Your task to perform on an android device: stop showing notifications on the lock screen Image 0: 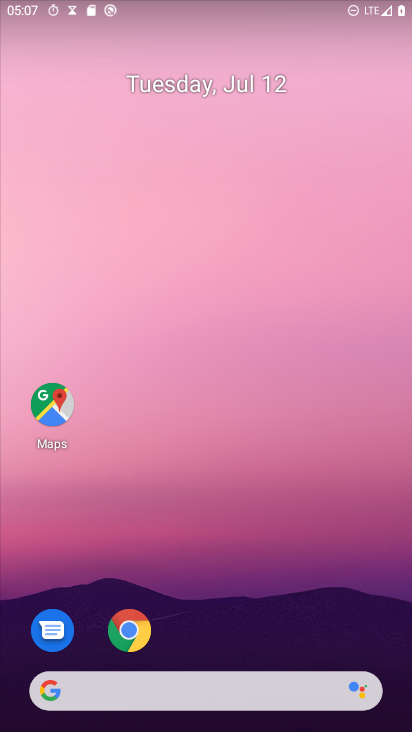
Step 0: drag from (224, 703) to (333, 24)
Your task to perform on an android device: stop showing notifications on the lock screen Image 1: 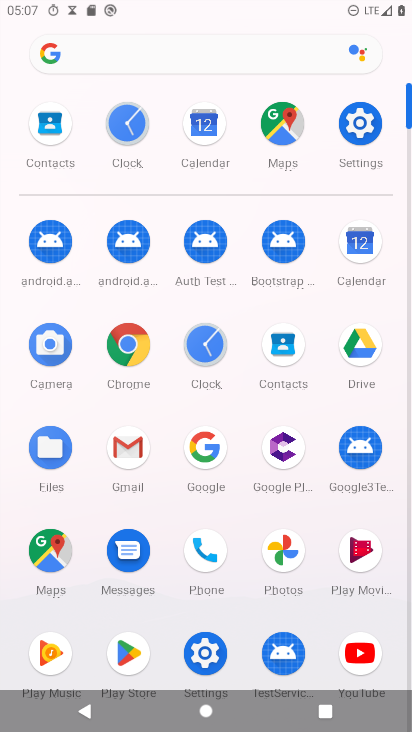
Step 1: click (367, 112)
Your task to perform on an android device: stop showing notifications on the lock screen Image 2: 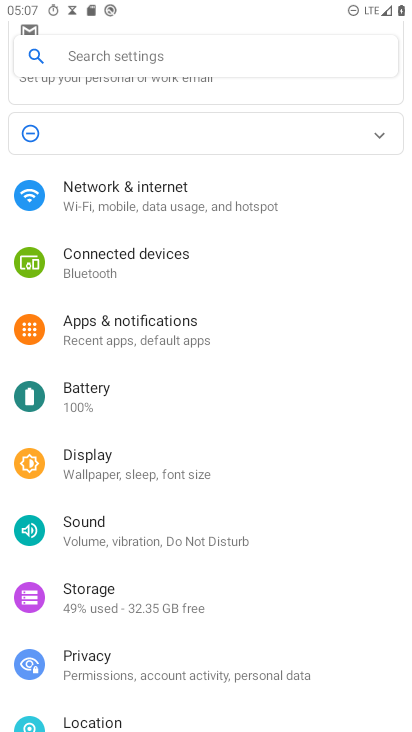
Step 2: click (153, 330)
Your task to perform on an android device: stop showing notifications on the lock screen Image 3: 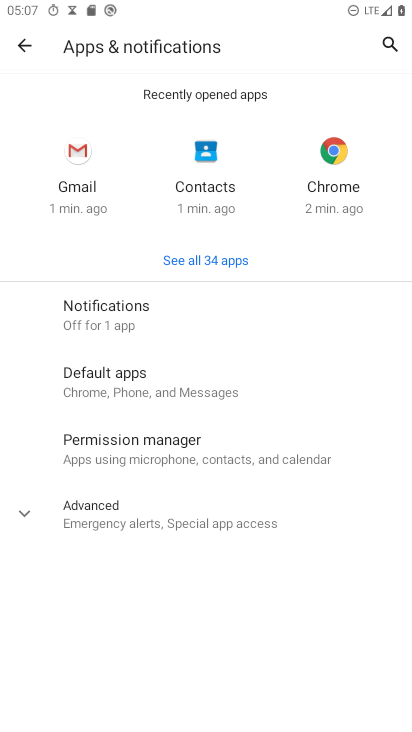
Step 3: click (140, 316)
Your task to perform on an android device: stop showing notifications on the lock screen Image 4: 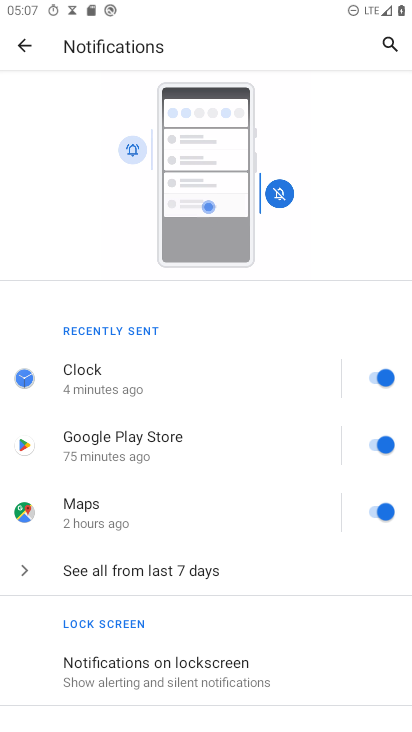
Step 4: click (190, 672)
Your task to perform on an android device: stop showing notifications on the lock screen Image 5: 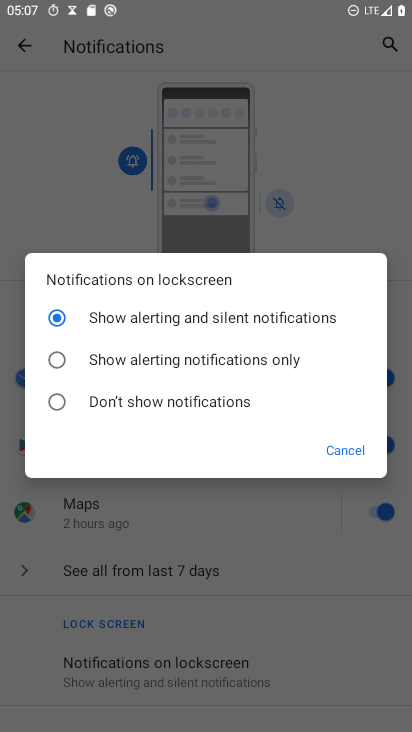
Step 5: click (54, 400)
Your task to perform on an android device: stop showing notifications on the lock screen Image 6: 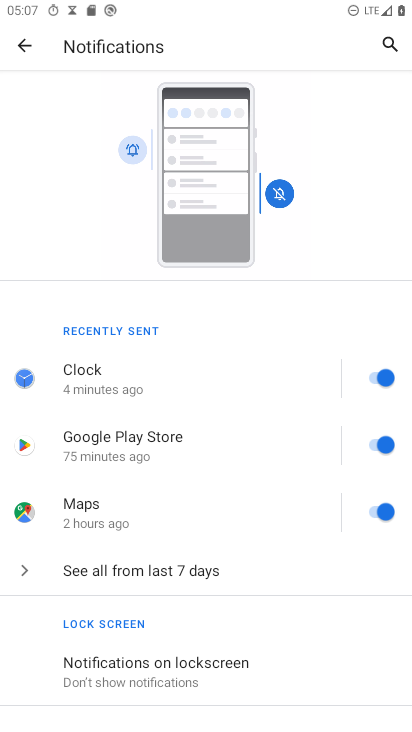
Step 6: task complete